Your task to perform on an android device: Open Yahoo.com Image 0: 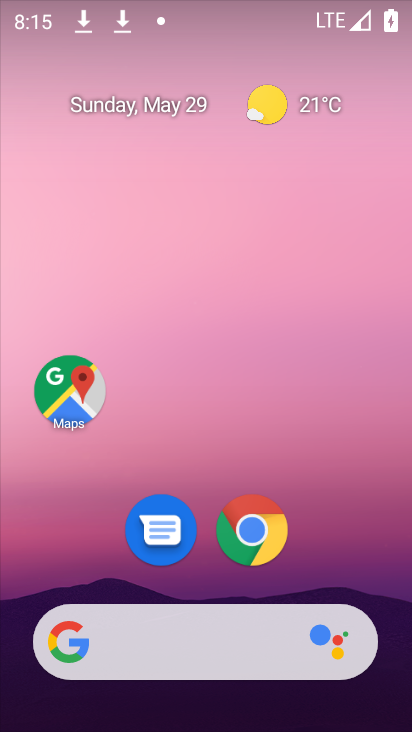
Step 0: drag from (218, 692) to (256, 194)
Your task to perform on an android device: Open Yahoo.com Image 1: 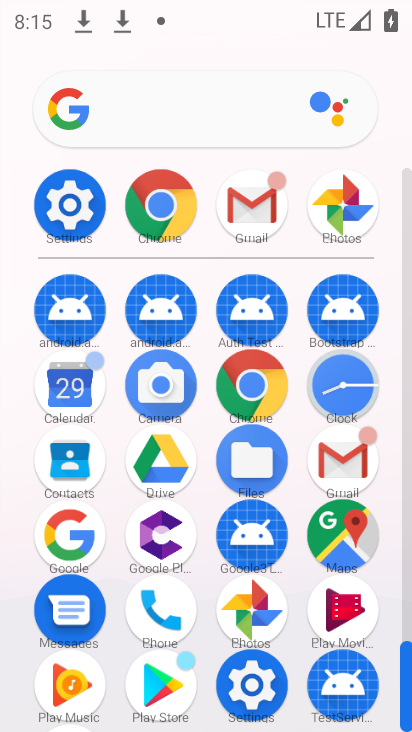
Step 1: click (145, 210)
Your task to perform on an android device: Open Yahoo.com Image 2: 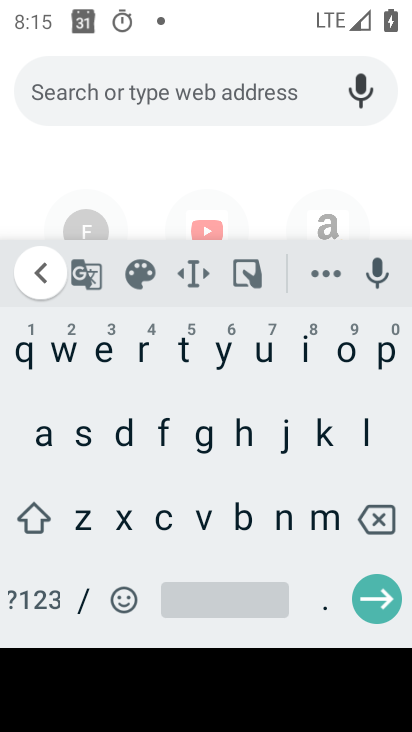
Step 2: press back button
Your task to perform on an android device: Open Yahoo.com Image 3: 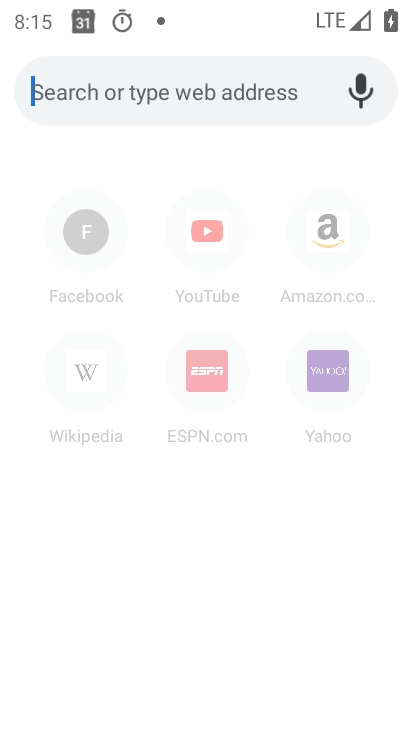
Step 3: click (317, 402)
Your task to perform on an android device: Open Yahoo.com Image 4: 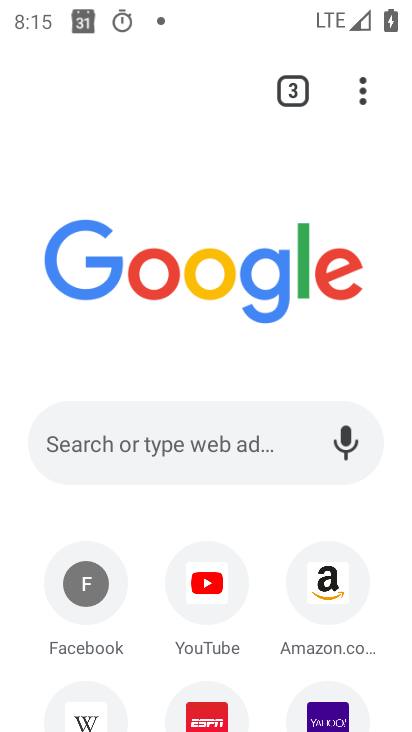
Step 4: click (325, 703)
Your task to perform on an android device: Open Yahoo.com Image 5: 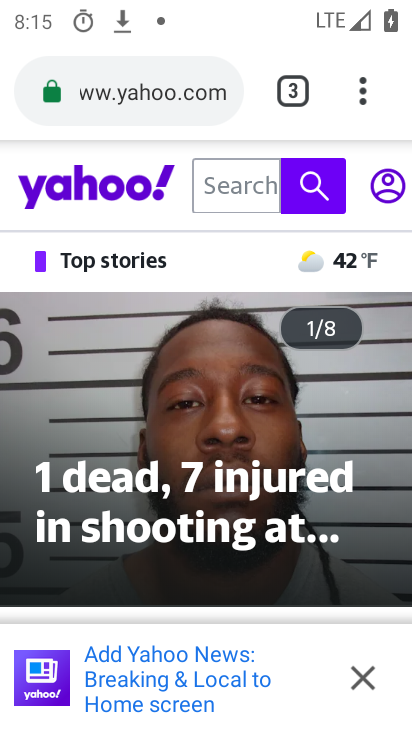
Step 5: task complete